Your task to perform on an android device: turn off javascript in the chrome app Image 0: 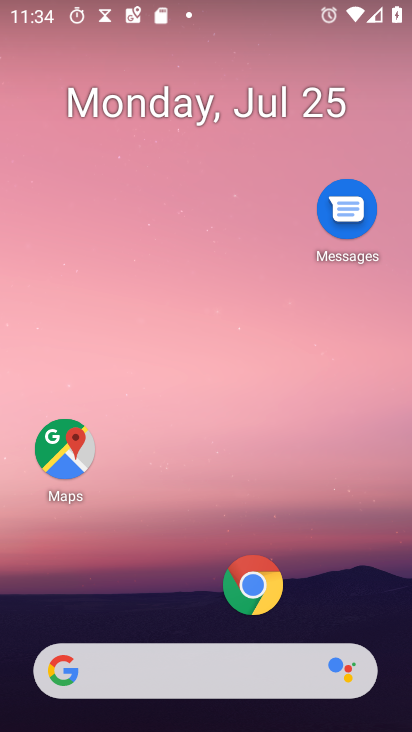
Step 0: press home button
Your task to perform on an android device: turn off javascript in the chrome app Image 1: 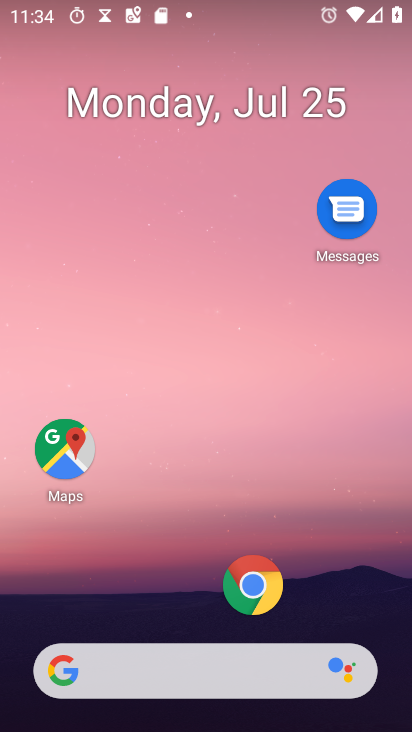
Step 1: click (249, 592)
Your task to perform on an android device: turn off javascript in the chrome app Image 2: 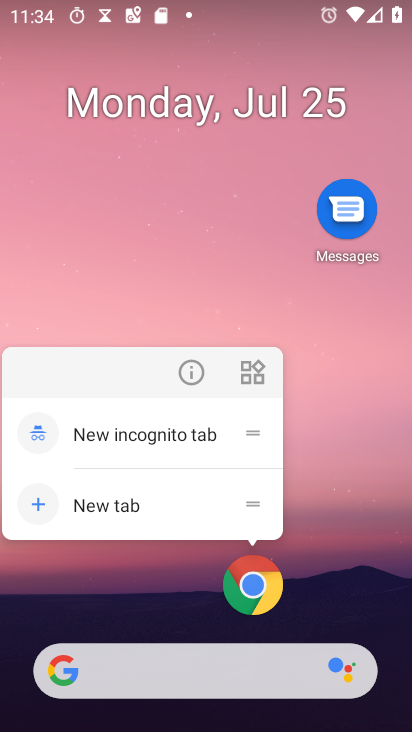
Step 2: click (251, 589)
Your task to perform on an android device: turn off javascript in the chrome app Image 3: 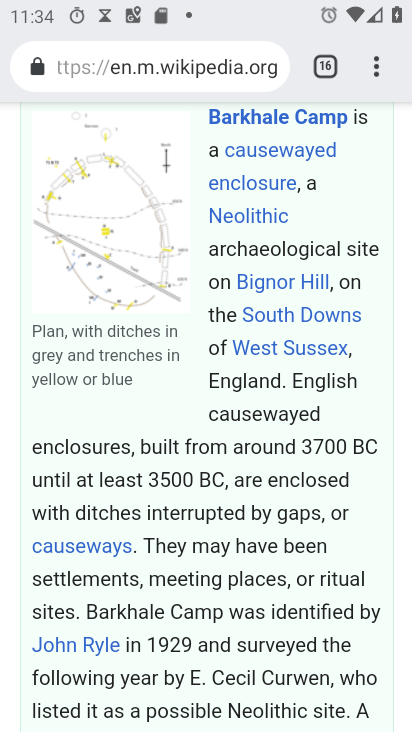
Step 3: drag from (374, 67) to (231, 599)
Your task to perform on an android device: turn off javascript in the chrome app Image 4: 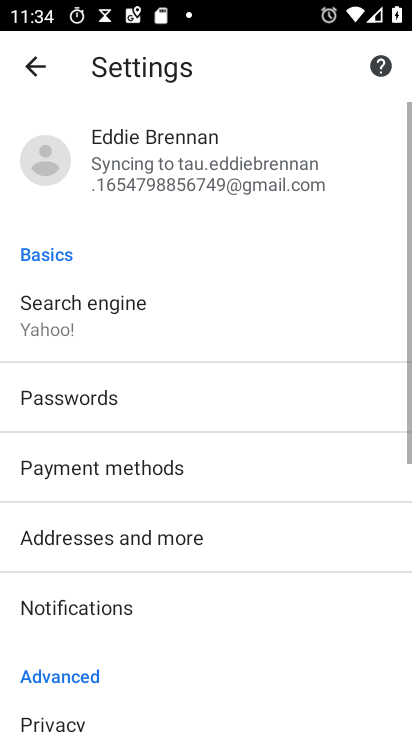
Step 4: drag from (192, 637) to (231, 148)
Your task to perform on an android device: turn off javascript in the chrome app Image 5: 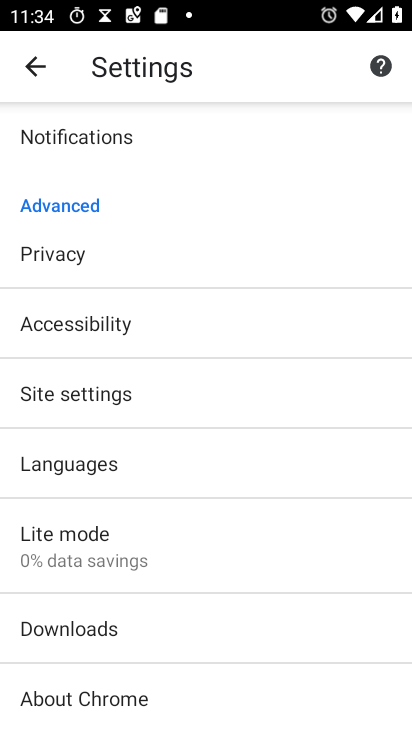
Step 5: click (89, 396)
Your task to perform on an android device: turn off javascript in the chrome app Image 6: 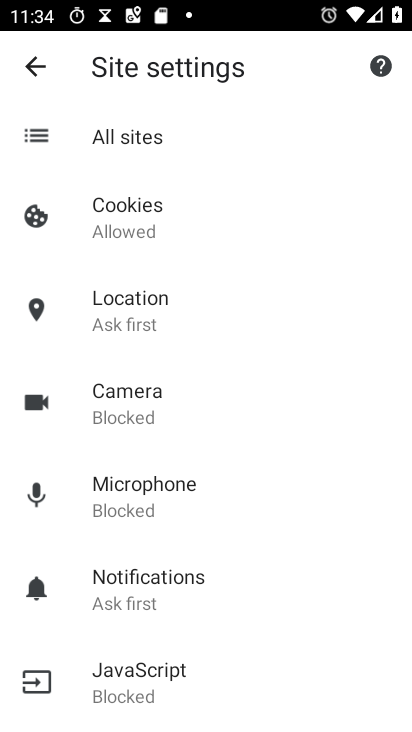
Step 6: drag from (253, 609) to (309, 316)
Your task to perform on an android device: turn off javascript in the chrome app Image 7: 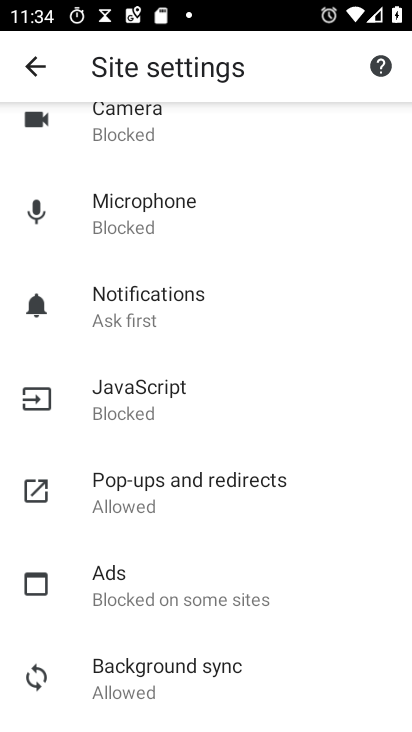
Step 7: click (142, 402)
Your task to perform on an android device: turn off javascript in the chrome app Image 8: 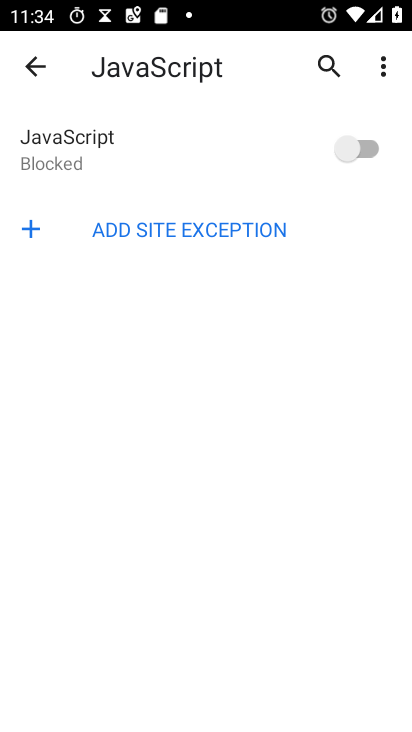
Step 8: task complete